Your task to perform on an android device: change text size in settings app Image 0: 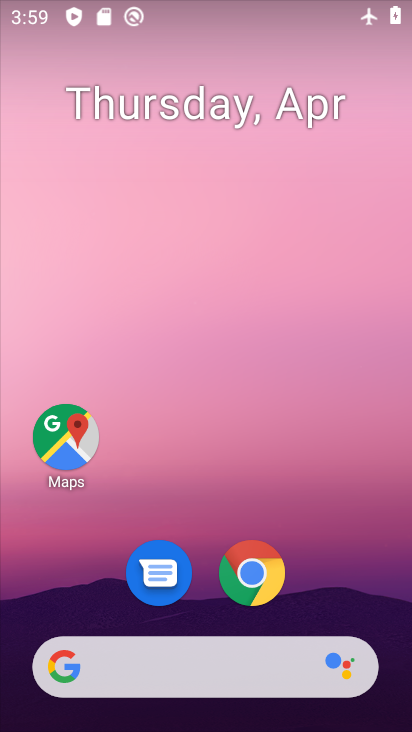
Step 0: drag from (325, 580) to (260, 93)
Your task to perform on an android device: change text size in settings app Image 1: 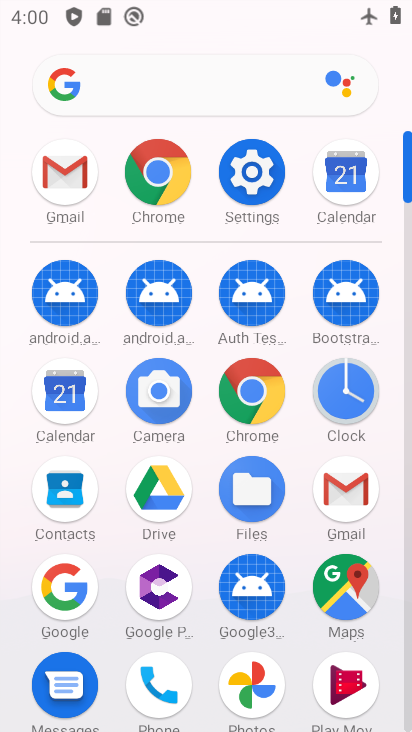
Step 1: click (238, 179)
Your task to perform on an android device: change text size in settings app Image 2: 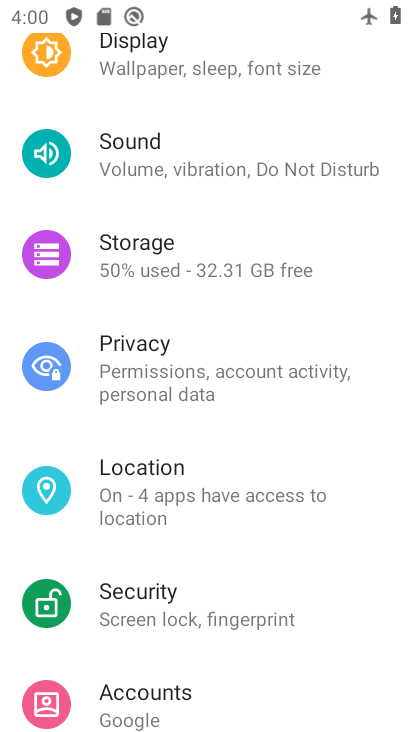
Step 2: click (189, 76)
Your task to perform on an android device: change text size in settings app Image 3: 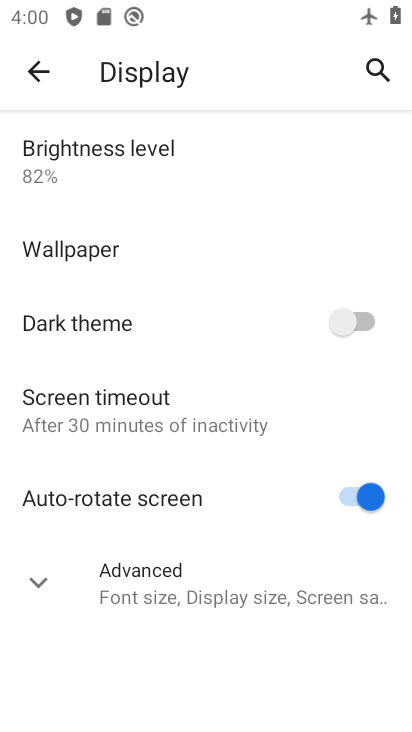
Step 3: click (40, 584)
Your task to perform on an android device: change text size in settings app Image 4: 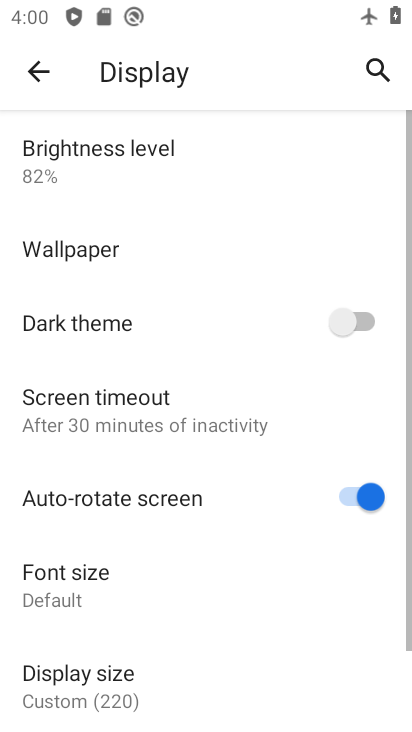
Step 4: click (126, 603)
Your task to perform on an android device: change text size in settings app Image 5: 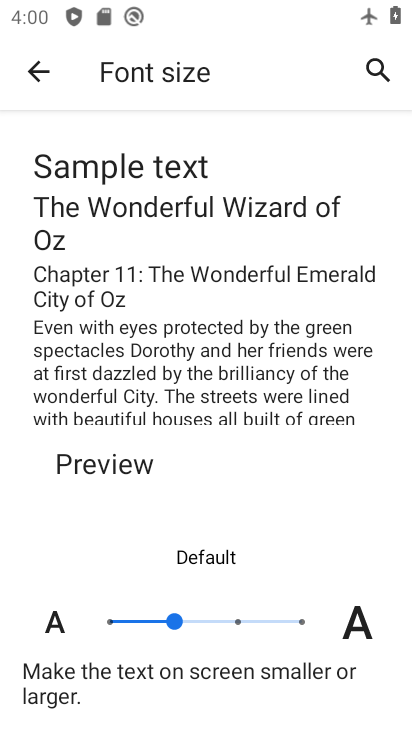
Step 5: click (232, 617)
Your task to perform on an android device: change text size in settings app Image 6: 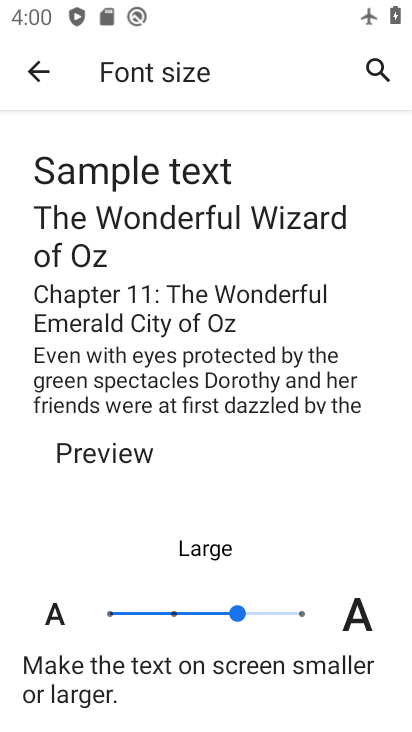
Step 6: task complete